Your task to perform on an android device: change the clock style Image 0: 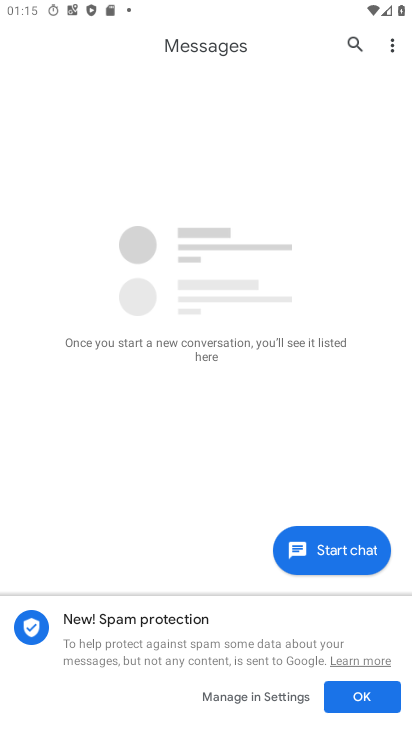
Step 0: press home button
Your task to perform on an android device: change the clock style Image 1: 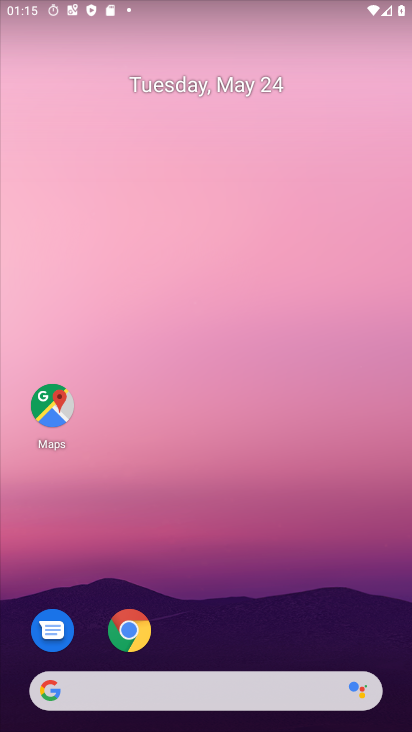
Step 1: drag from (238, 645) to (262, 5)
Your task to perform on an android device: change the clock style Image 2: 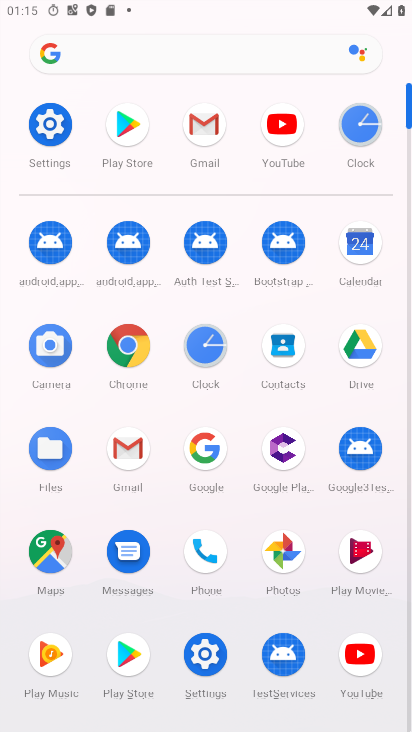
Step 2: click (363, 131)
Your task to perform on an android device: change the clock style Image 3: 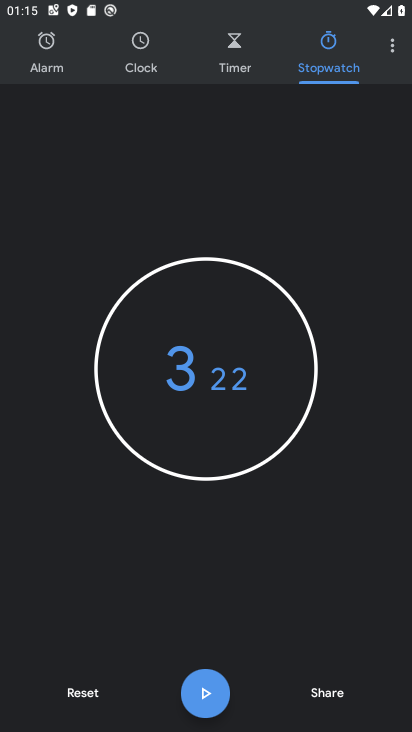
Step 3: click (393, 48)
Your task to perform on an android device: change the clock style Image 4: 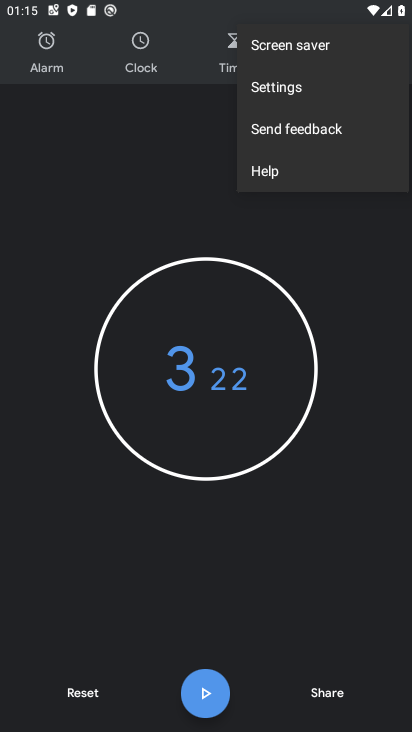
Step 4: click (293, 91)
Your task to perform on an android device: change the clock style Image 5: 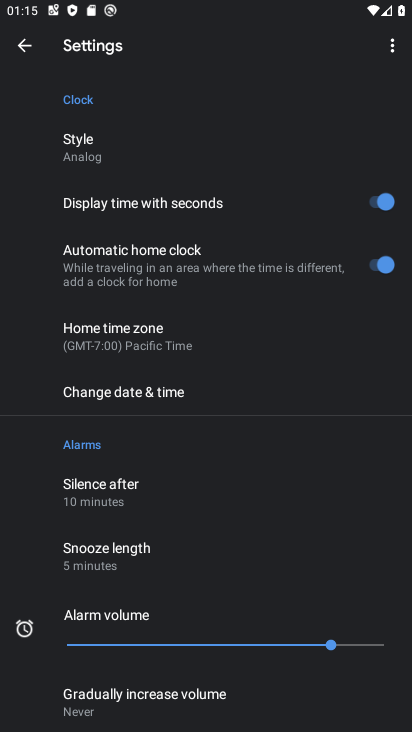
Step 5: click (87, 155)
Your task to perform on an android device: change the clock style Image 6: 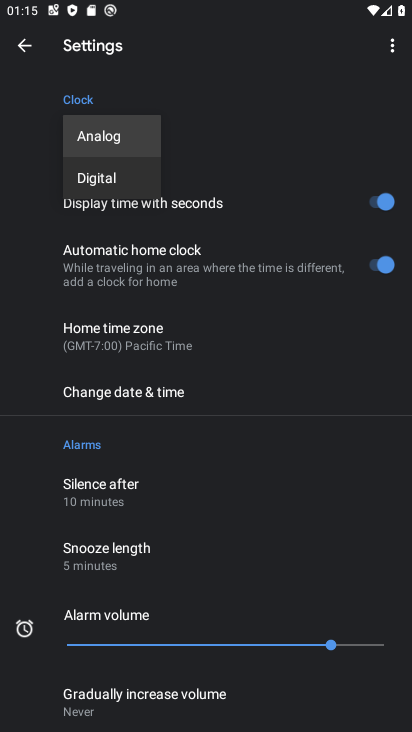
Step 6: click (101, 178)
Your task to perform on an android device: change the clock style Image 7: 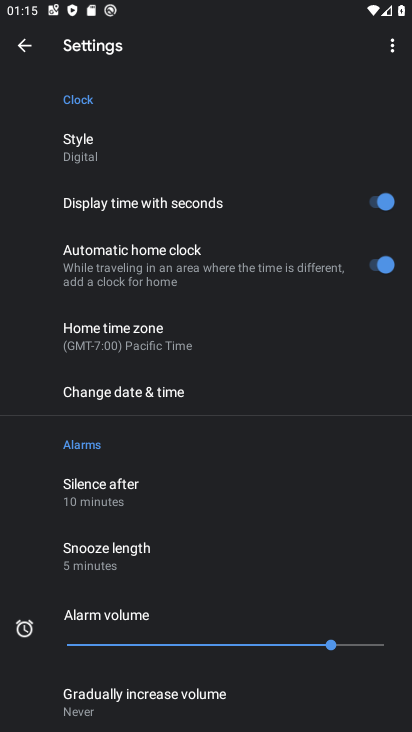
Step 7: task complete